Your task to perform on an android device: change your default location settings in chrome Image 0: 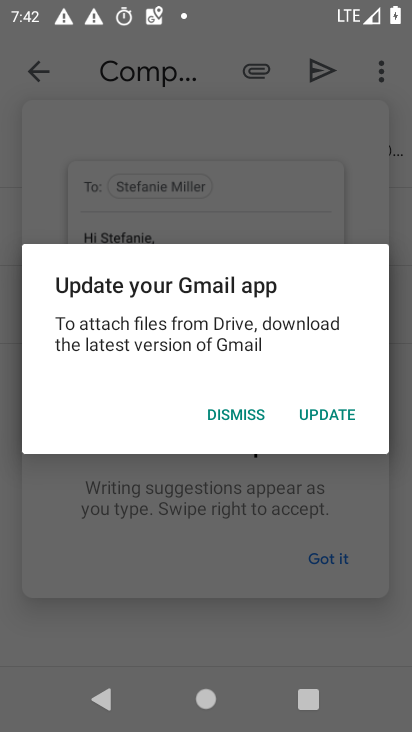
Step 0: press home button
Your task to perform on an android device: change your default location settings in chrome Image 1: 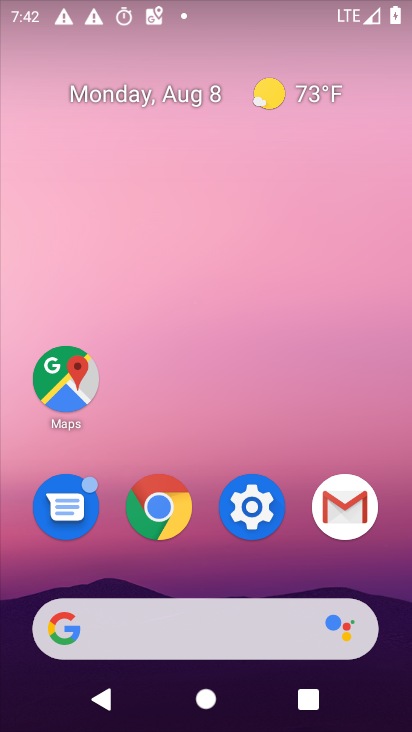
Step 1: drag from (251, 654) to (216, 244)
Your task to perform on an android device: change your default location settings in chrome Image 2: 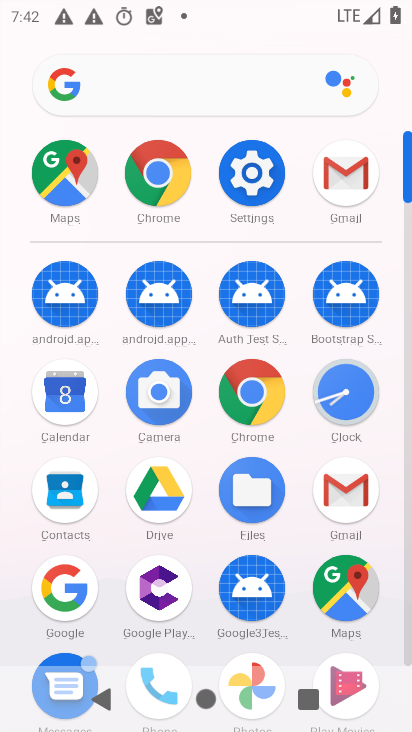
Step 2: click (161, 176)
Your task to perform on an android device: change your default location settings in chrome Image 3: 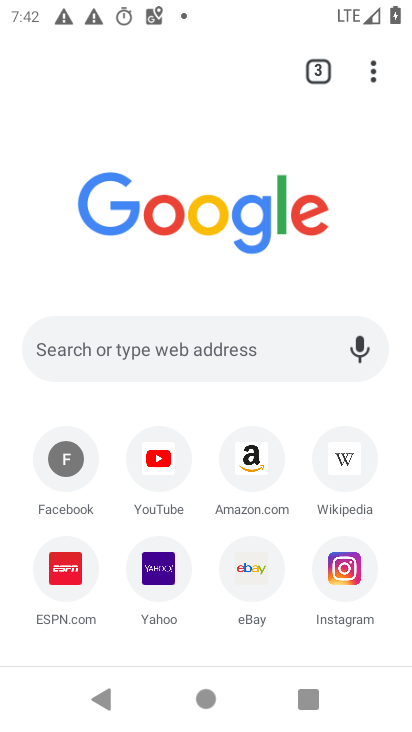
Step 3: click (371, 75)
Your task to perform on an android device: change your default location settings in chrome Image 4: 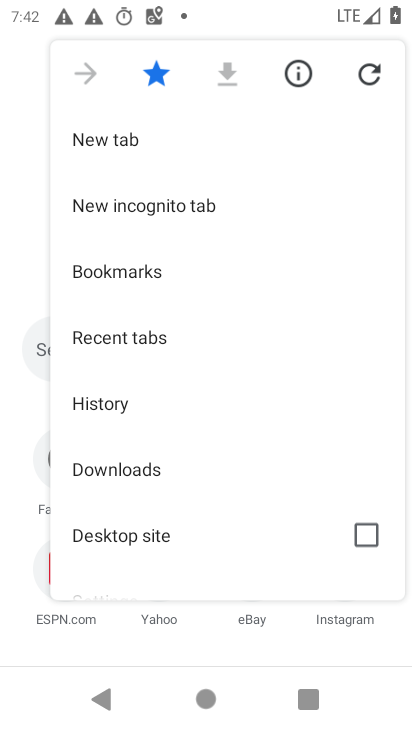
Step 4: drag from (189, 566) to (228, 370)
Your task to perform on an android device: change your default location settings in chrome Image 5: 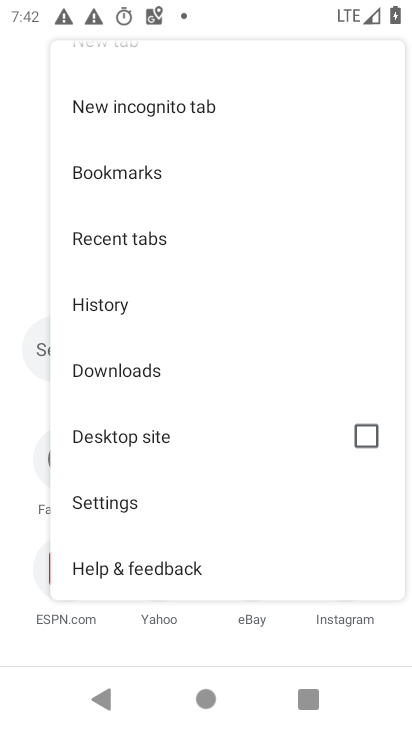
Step 5: click (124, 497)
Your task to perform on an android device: change your default location settings in chrome Image 6: 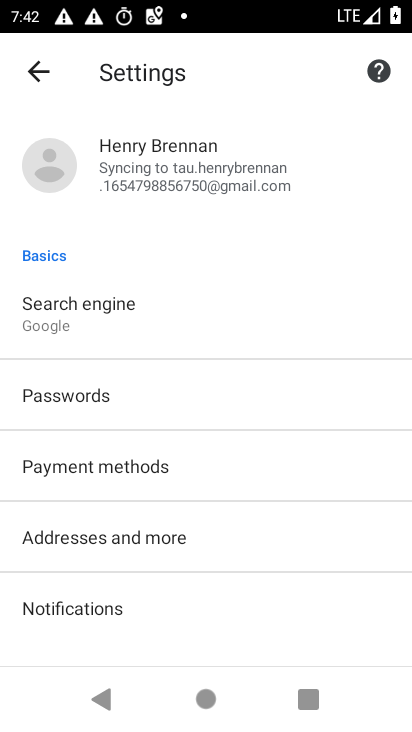
Step 6: drag from (164, 558) to (164, 364)
Your task to perform on an android device: change your default location settings in chrome Image 7: 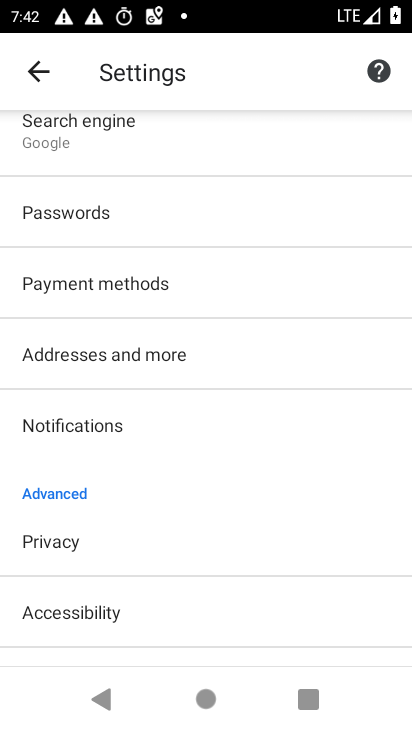
Step 7: drag from (217, 559) to (216, 421)
Your task to perform on an android device: change your default location settings in chrome Image 8: 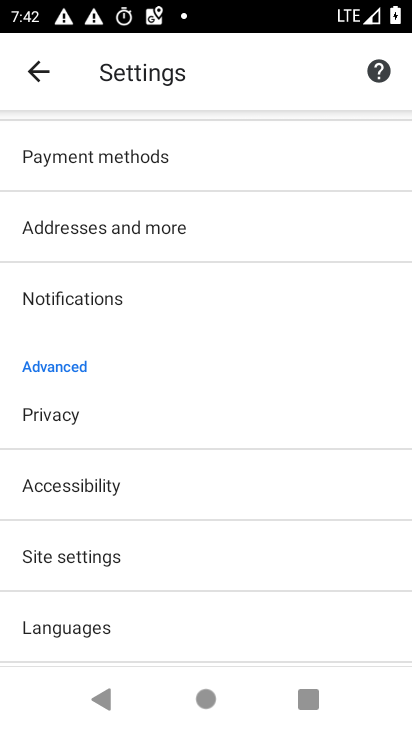
Step 8: click (142, 569)
Your task to perform on an android device: change your default location settings in chrome Image 9: 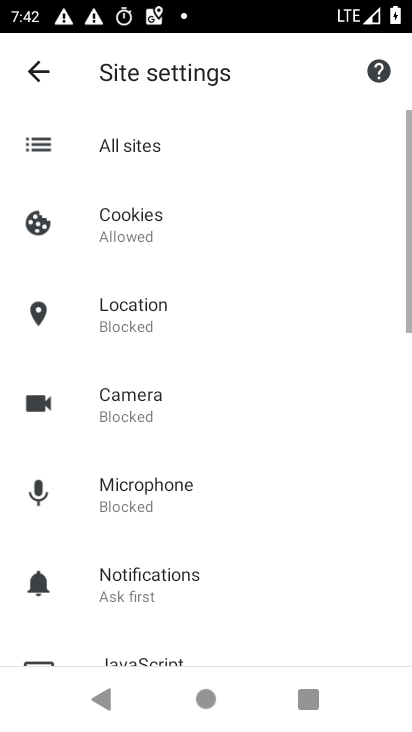
Step 9: click (191, 325)
Your task to perform on an android device: change your default location settings in chrome Image 10: 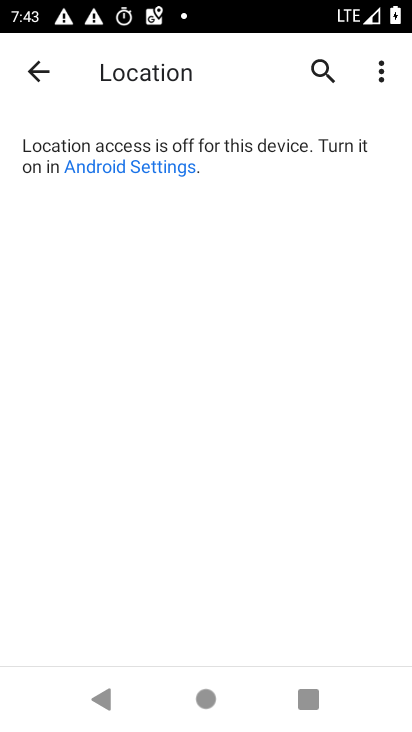
Step 10: task complete